Your task to perform on an android device: Open accessibility settings Image 0: 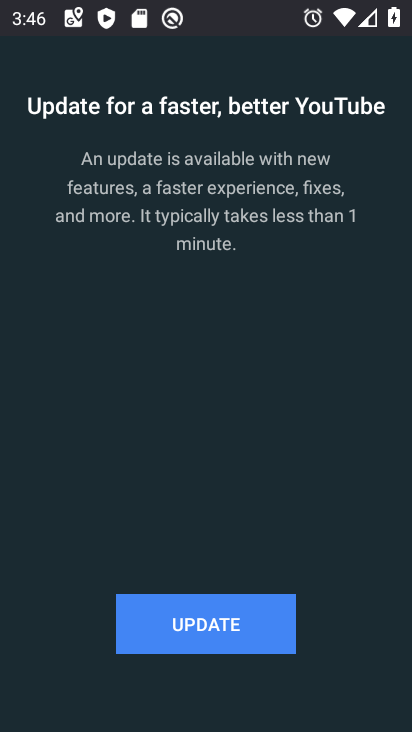
Step 0: press home button
Your task to perform on an android device: Open accessibility settings Image 1: 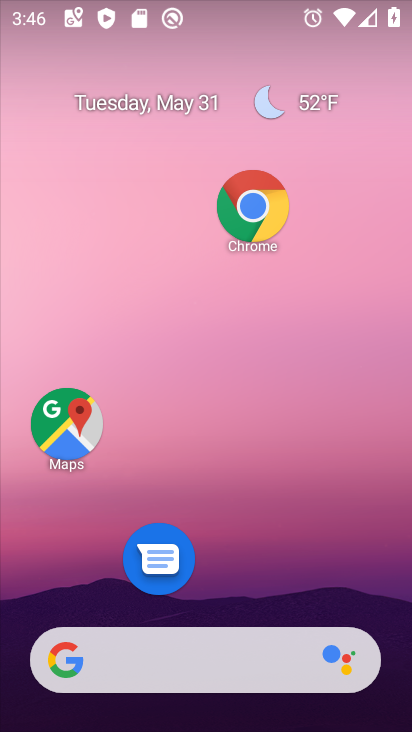
Step 1: drag from (224, 596) to (203, 238)
Your task to perform on an android device: Open accessibility settings Image 2: 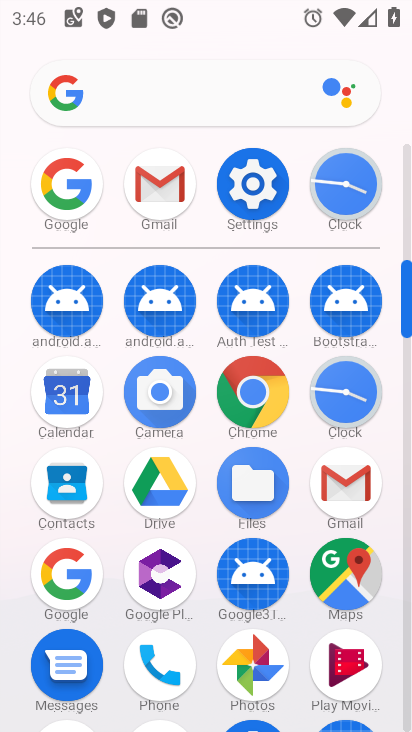
Step 2: click (243, 207)
Your task to perform on an android device: Open accessibility settings Image 3: 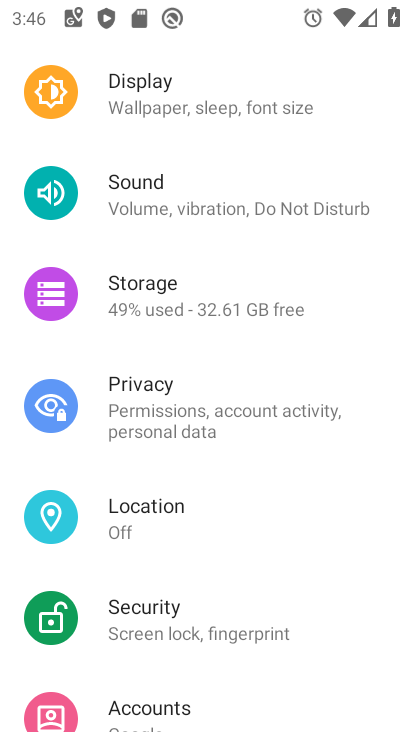
Step 3: drag from (240, 503) to (223, 221)
Your task to perform on an android device: Open accessibility settings Image 4: 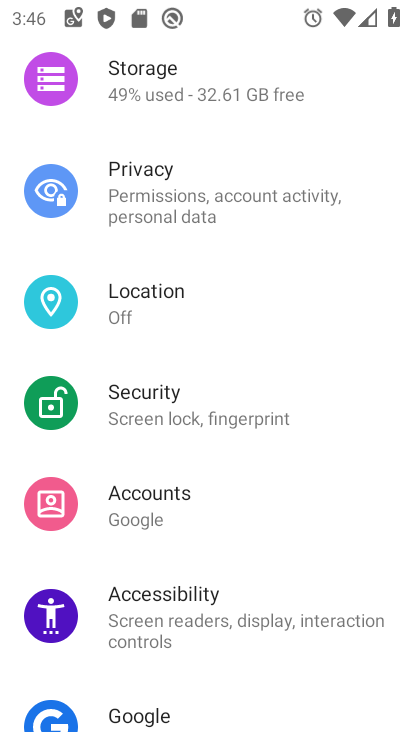
Step 4: click (202, 590)
Your task to perform on an android device: Open accessibility settings Image 5: 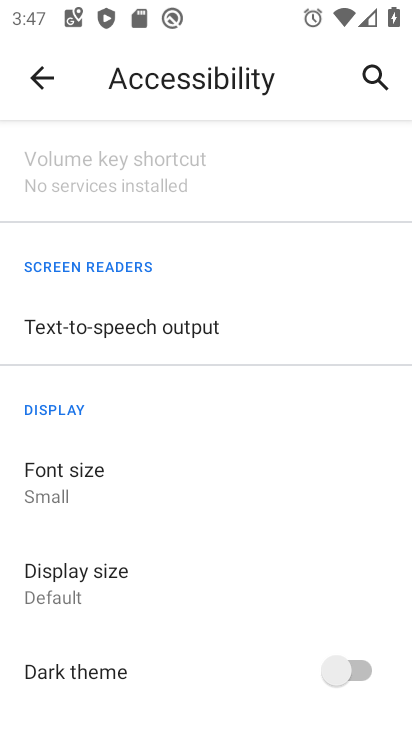
Step 5: task complete